Your task to perform on an android device: set the timer Image 0: 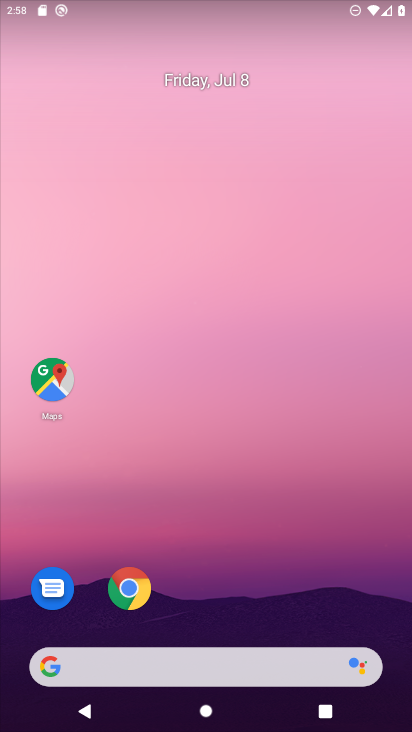
Step 0: click (387, 393)
Your task to perform on an android device: set the timer Image 1: 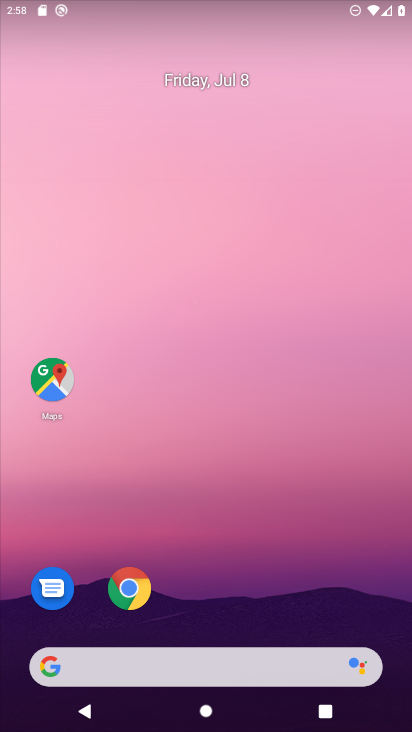
Step 1: drag from (211, 559) to (224, 0)
Your task to perform on an android device: set the timer Image 2: 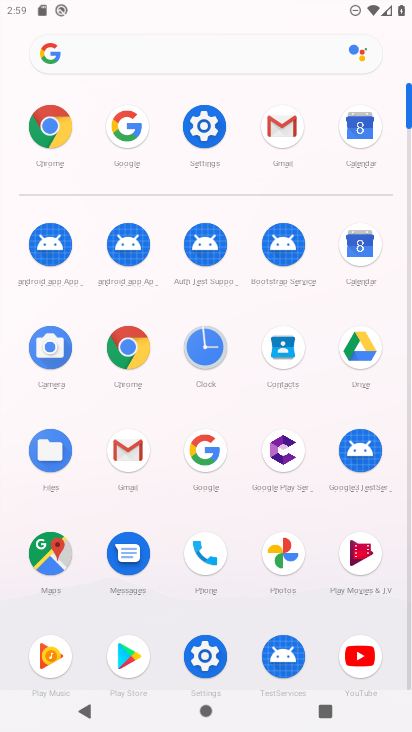
Step 2: click (204, 351)
Your task to perform on an android device: set the timer Image 3: 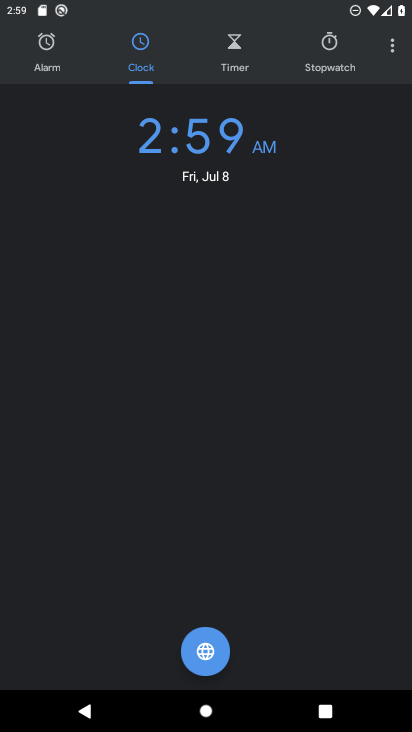
Step 3: click (227, 68)
Your task to perform on an android device: set the timer Image 4: 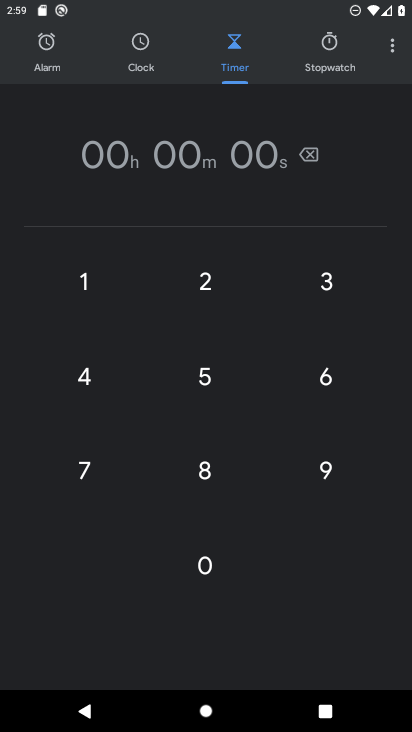
Step 4: click (197, 277)
Your task to perform on an android device: set the timer Image 5: 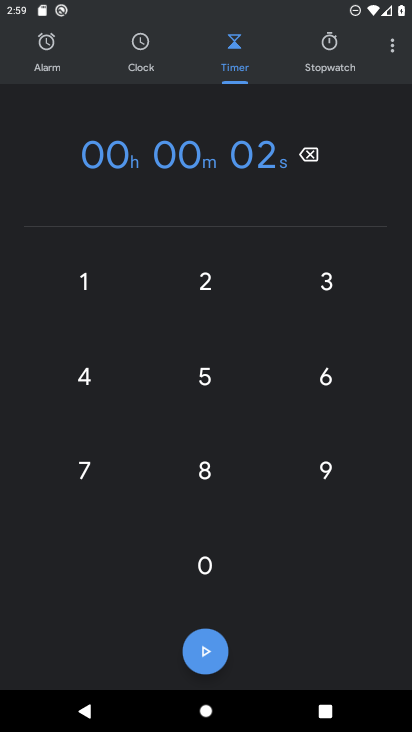
Step 5: click (213, 558)
Your task to perform on an android device: set the timer Image 6: 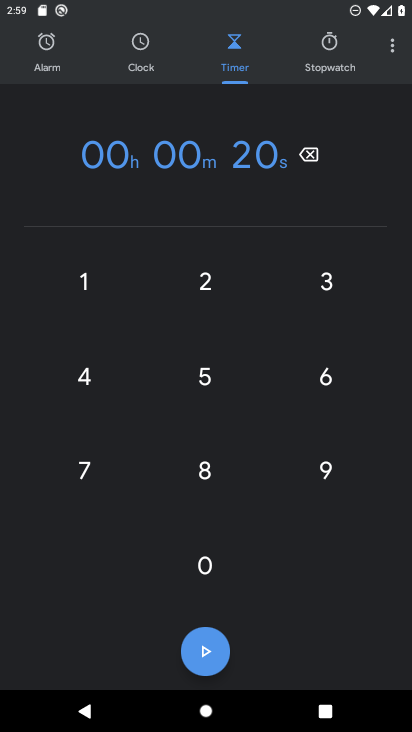
Step 6: click (213, 558)
Your task to perform on an android device: set the timer Image 7: 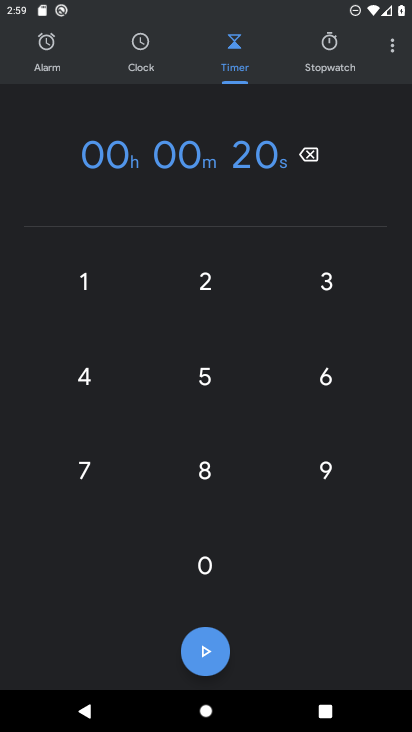
Step 7: click (213, 558)
Your task to perform on an android device: set the timer Image 8: 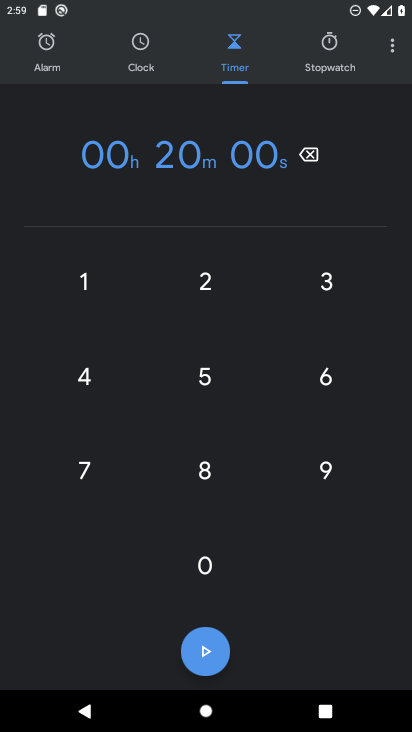
Step 8: click (208, 646)
Your task to perform on an android device: set the timer Image 9: 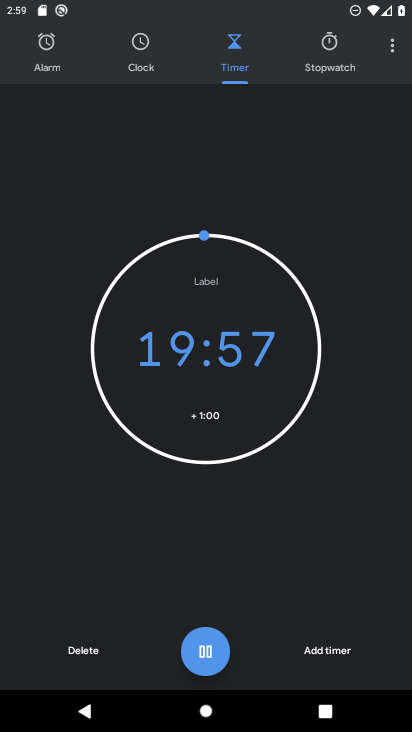
Step 9: click (312, 639)
Your task to perform on an android device: set the timer Image 10: 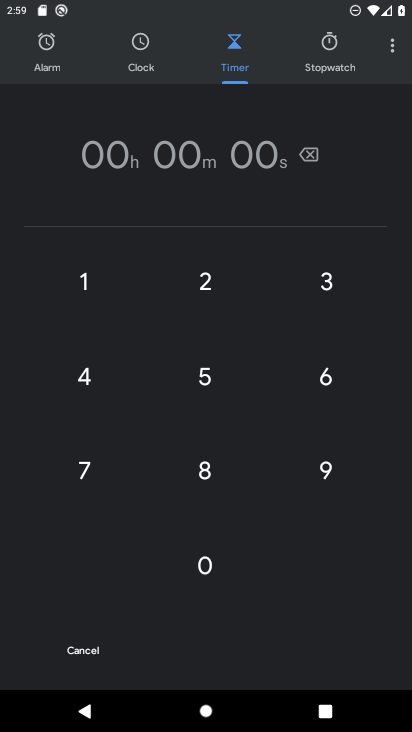
Step 10: task complete